Your task to perform on an android device: What's on my calendar today? Image 0: 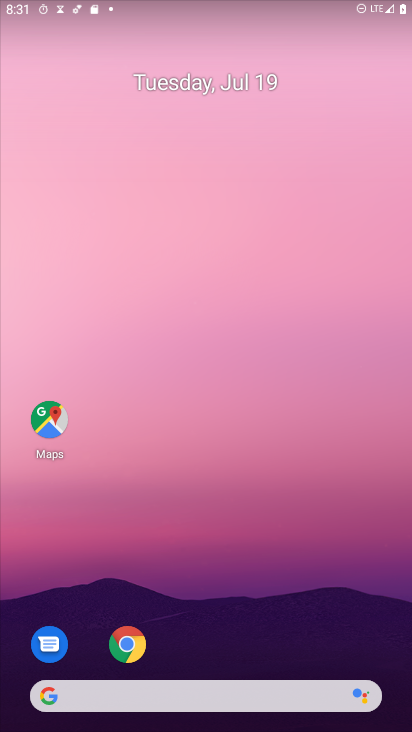
Step 0: drag from (60, 634) to (233, 58)
Your task to perform on an android device: What's on my calendar today? Image 1: 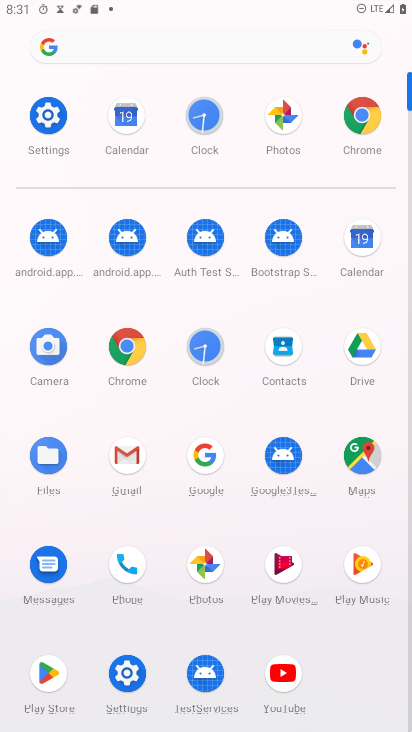
Step 1: click (364, 254)
Your task to perform on an android device: What's on my calendar today? Image 2: 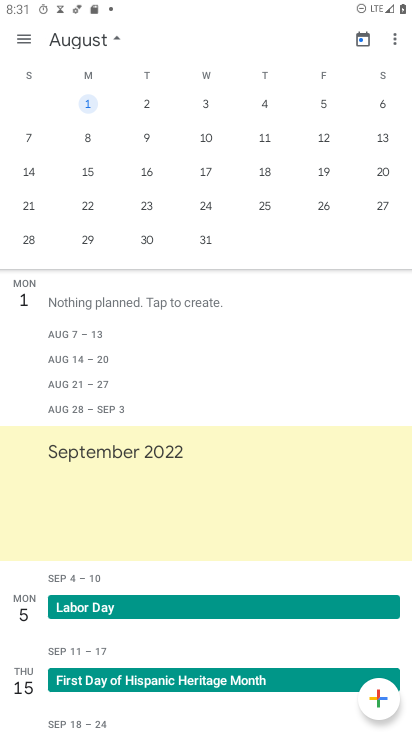
Step 2: drag from (9, 136) to (372, 170)
Your task to perform on an android device: What's on my calendar today? Image 3: 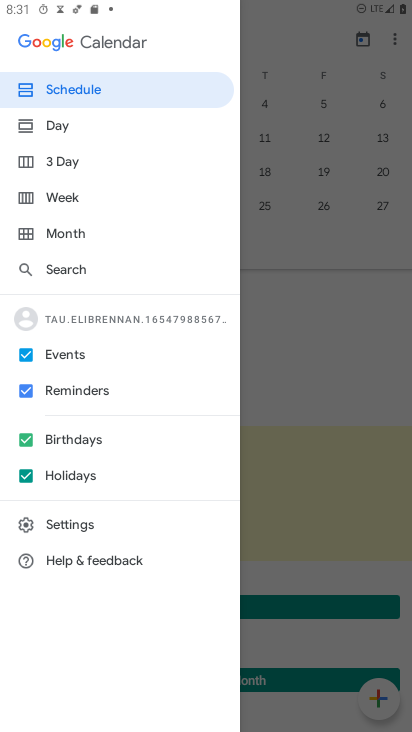
Step 3: click (319, 344)
Your task to perform on an android device: What's on my calendar today? Image 4: 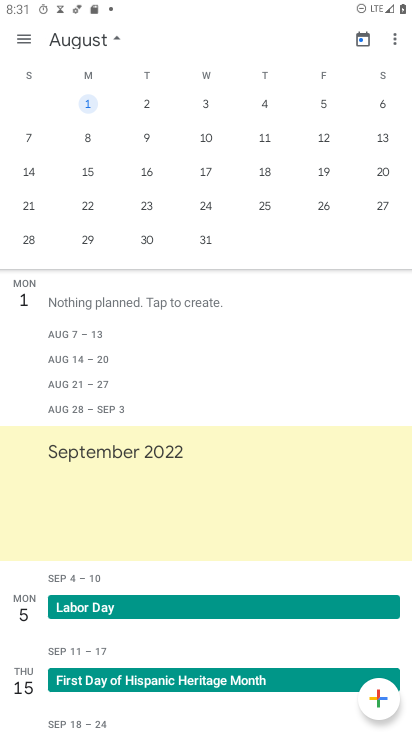
Step 4: task complete